Your task to perform on an android device: turn on translation in the chrome app Image 0: 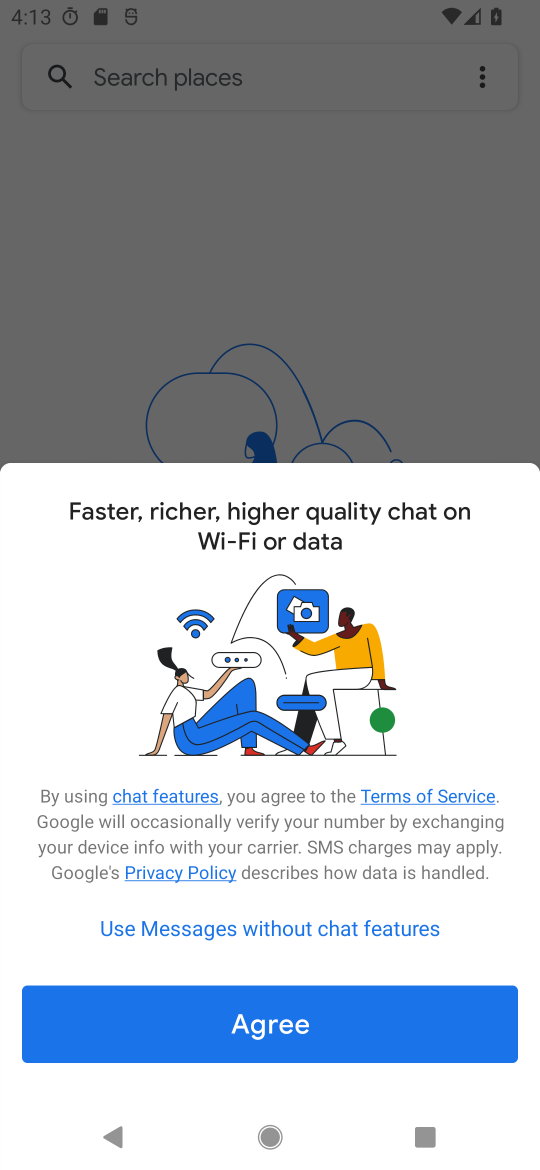
Step 0: press home button
Your task to perform on an android device: turn on translation in the chrome app Image 1: 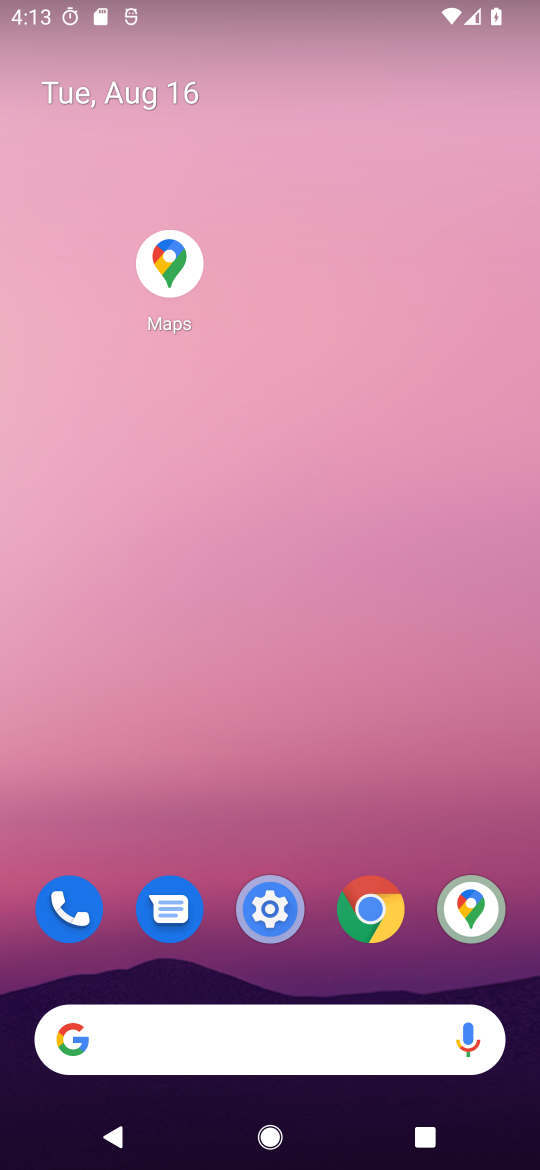
Step 1: click (377, 910)
Your task to perform on an android device: turn on translation in the chrome app Image 2: 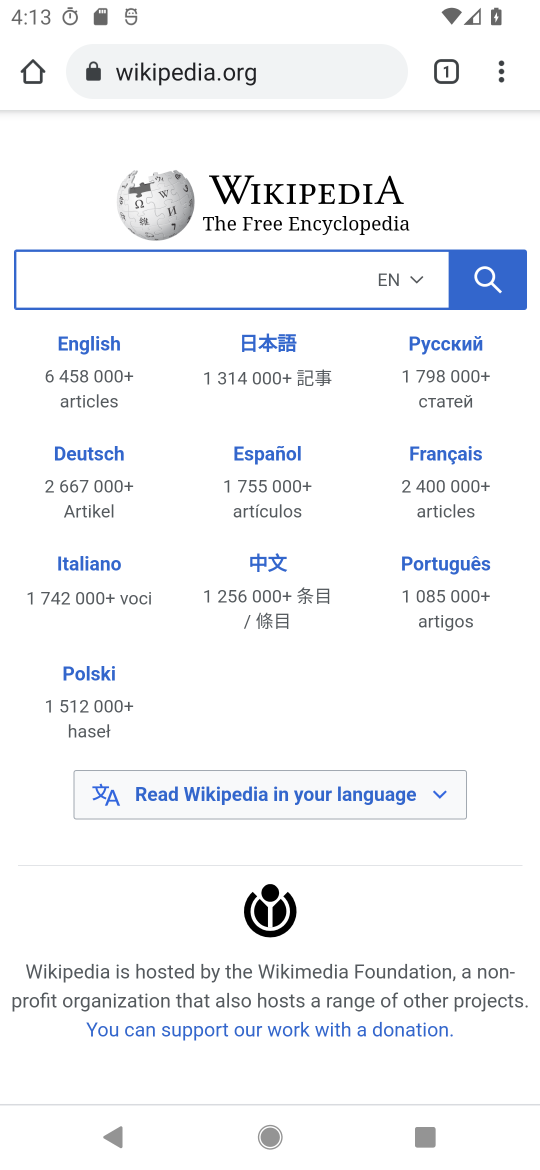
Step 2: click (496, 67)
Your task to perform on an android device: turn on translation in the chrome app Image 3: 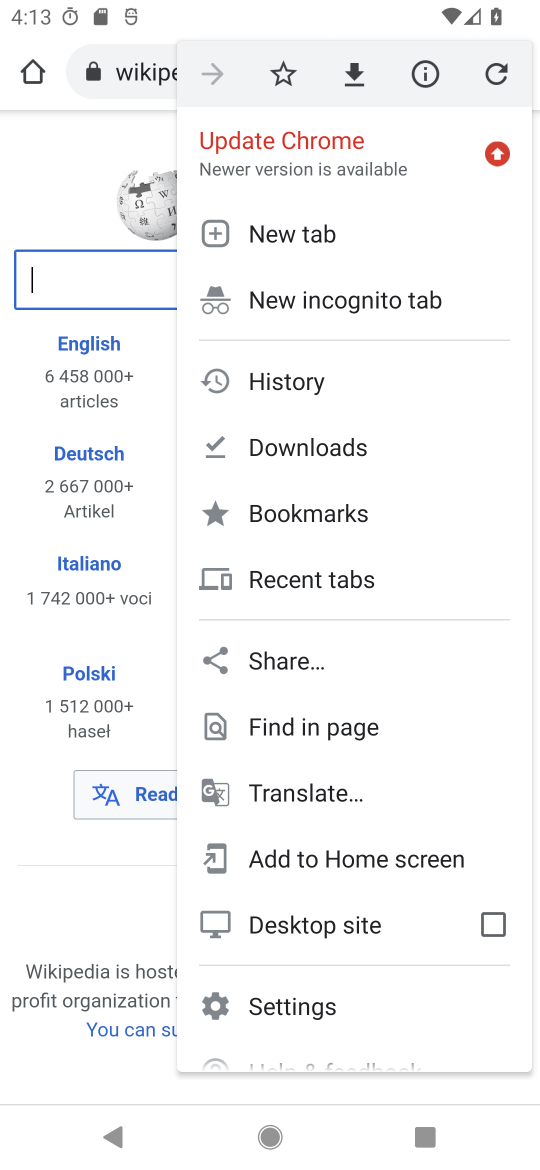
Step 3: click (252, 1014)
Your task to perform on an android device: turn on translation in the chrome app Image 4: 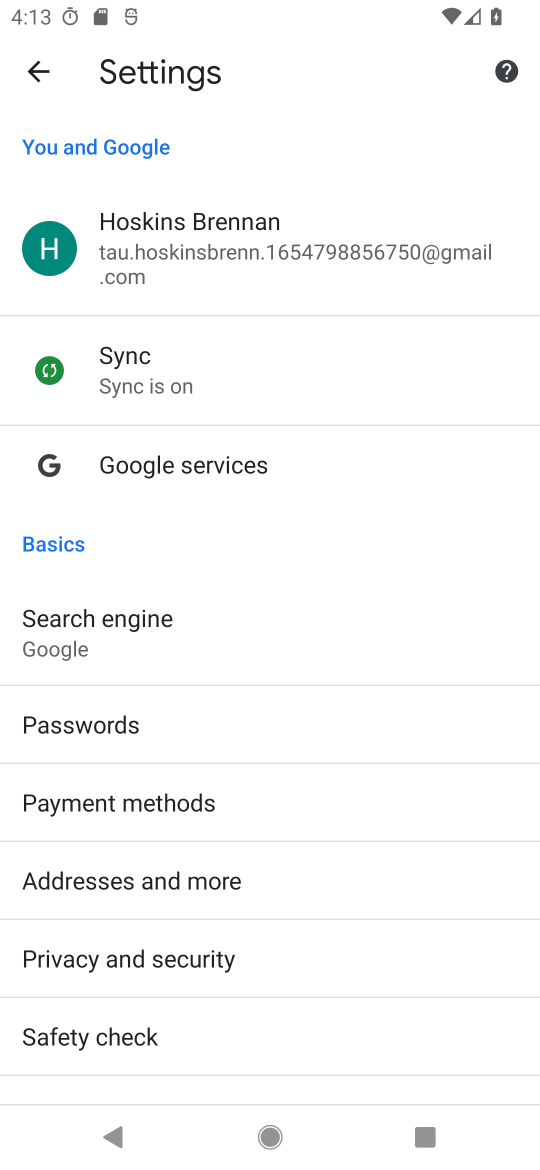
Step 4: drag from (147, 1003) to (412, 186)
Your task to perform on an android device: turn on translation in the chrome app Image 5: 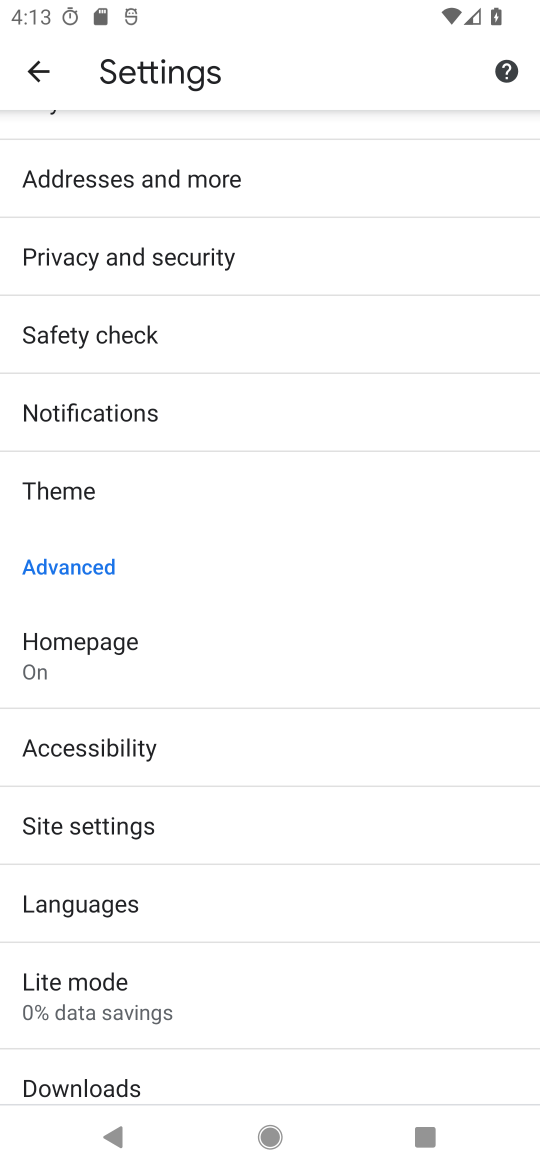
Step 5: drag from (286, 943) to (322, 585)
Your task to perform on an android device: turn on translation in the chrome app Image 6: 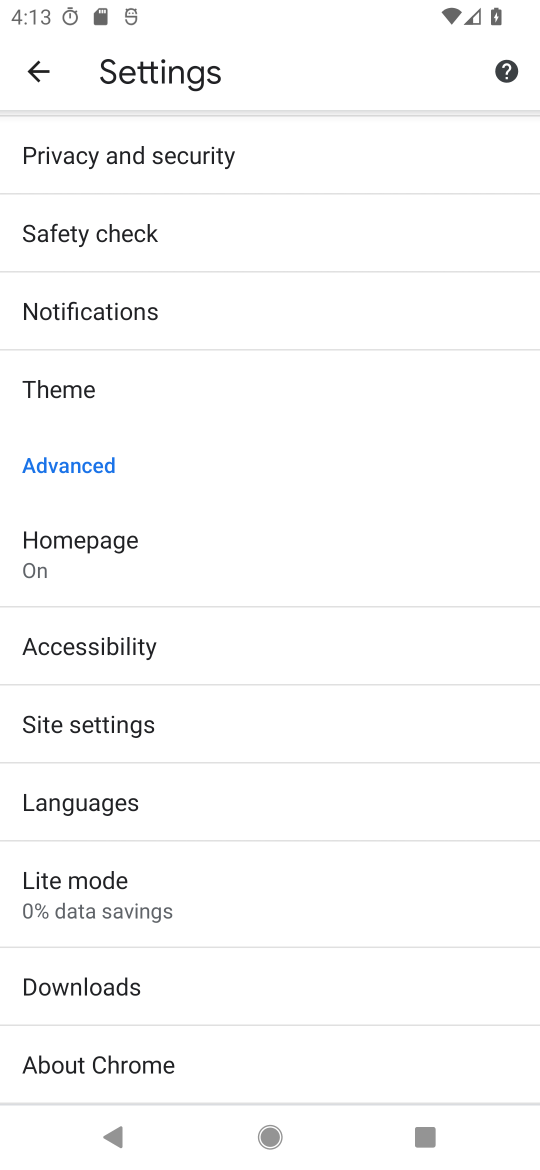
Step 6: click (115, 806)
Your task to perform on an android device: turn on translation in the chrome app Image 7: 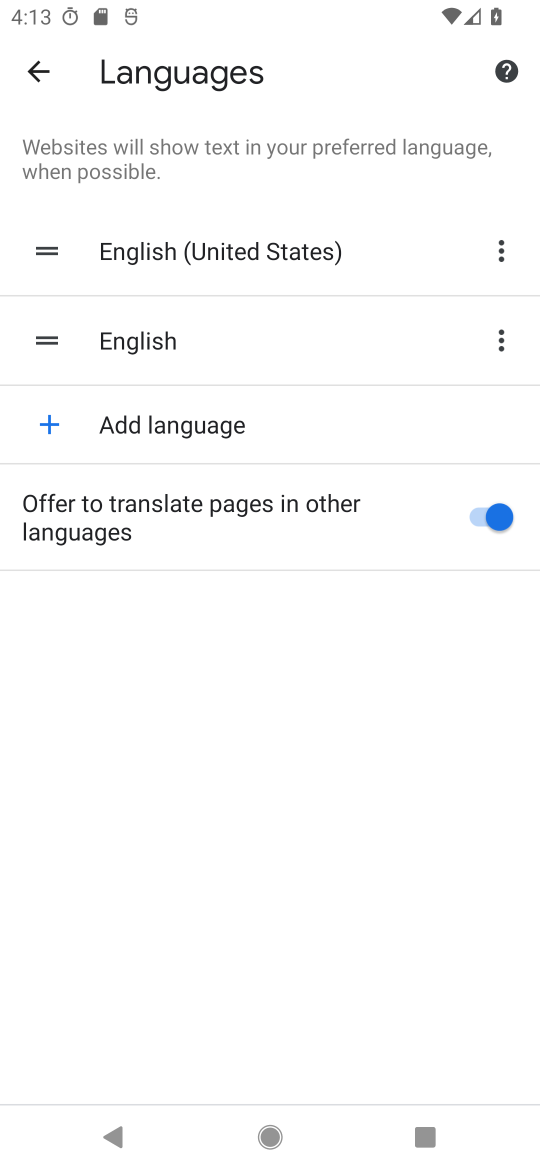
Step 7: task complete